Your task to perform on an android device: clear all cookies in the chrome app Image 0: 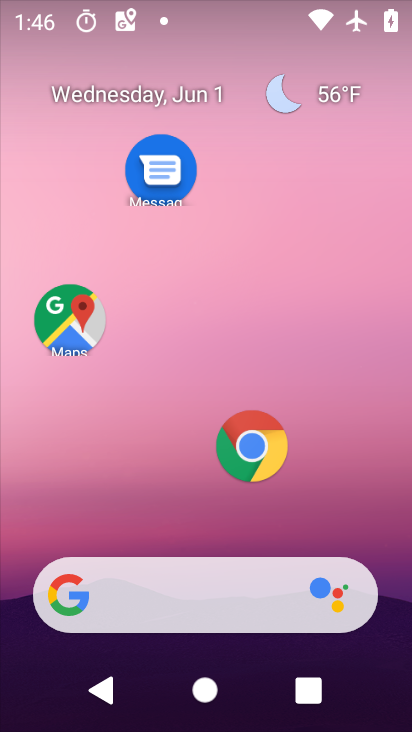
Step 0: drag from (178, 531) to (260, 171)
Your task to perform on an android device: clear all cookies in the chrome app Image 1: 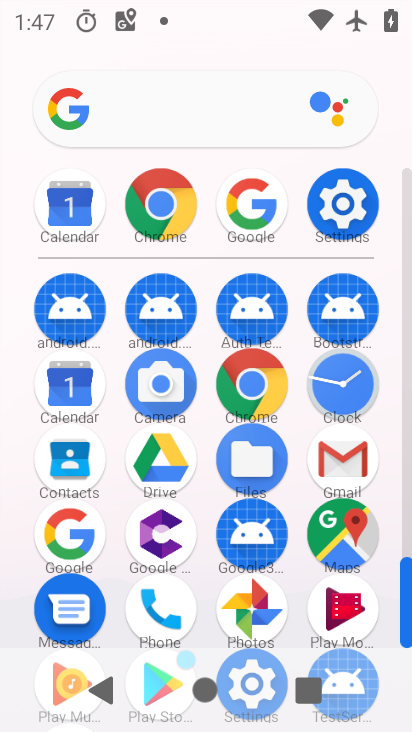
Step 1: drag from (208, 275) to (224, 89)
Your task to perform on an android device: clear all cookies in the chrome app Image 2: 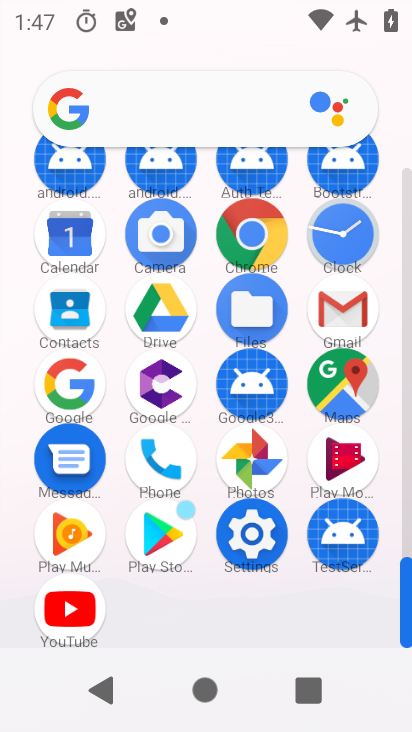
Step 2: click (250, 245)
Your task to perform on an android device: clear all cookies in the chrome app Image 3: 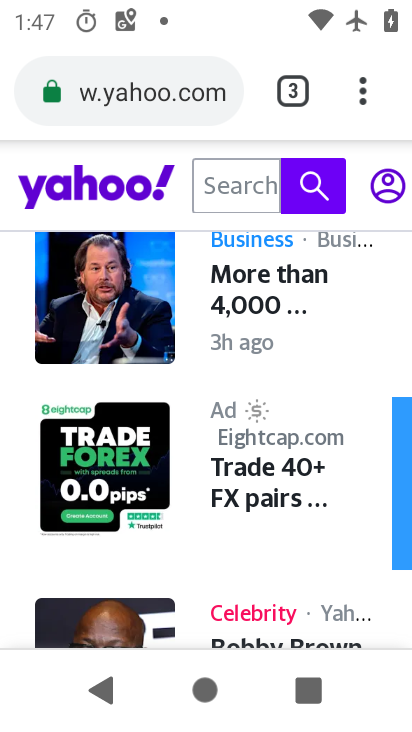
Step 3: click (363, 105)
Your task to perform on an android device: clear all cookies in the chrome app Image 4: 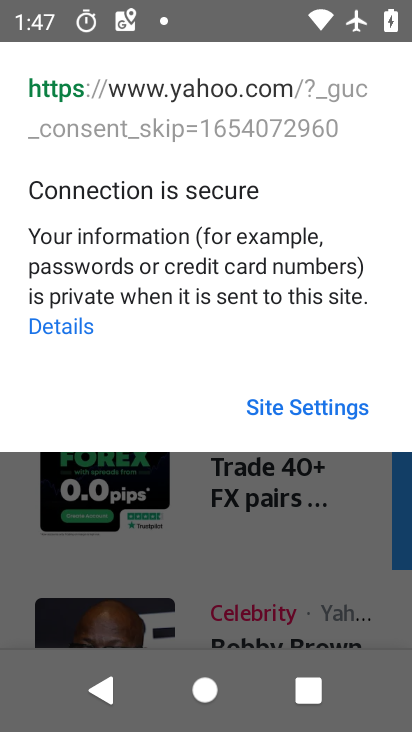
Step 4: task complete